Your task to perform on an android device: change your default location settings in chrome Image 0: 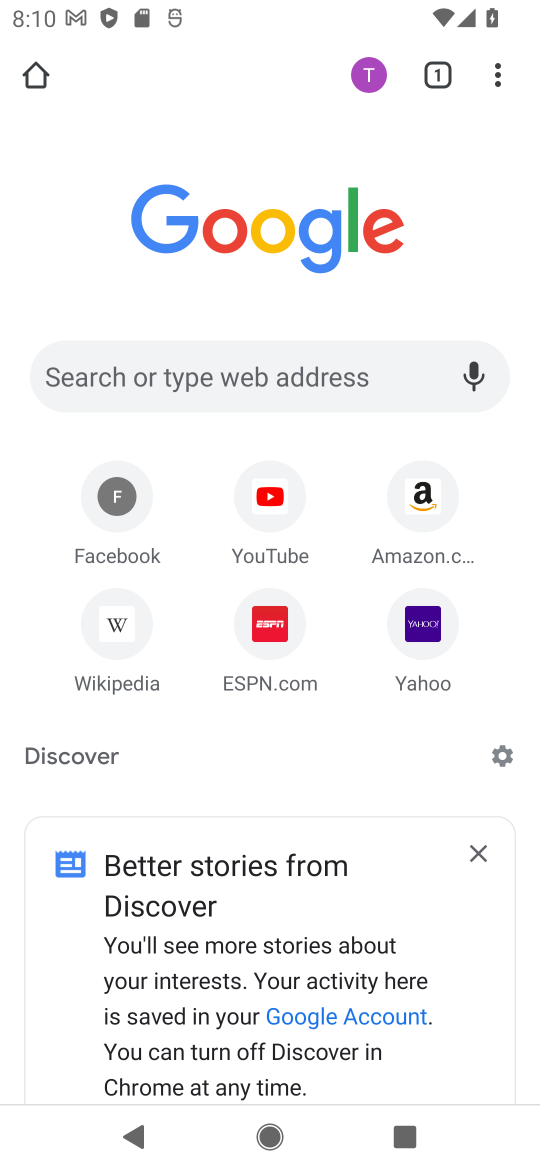
Step 0: press home button
Your task to perform on an android device: change your default location settings in chrome Image 1: 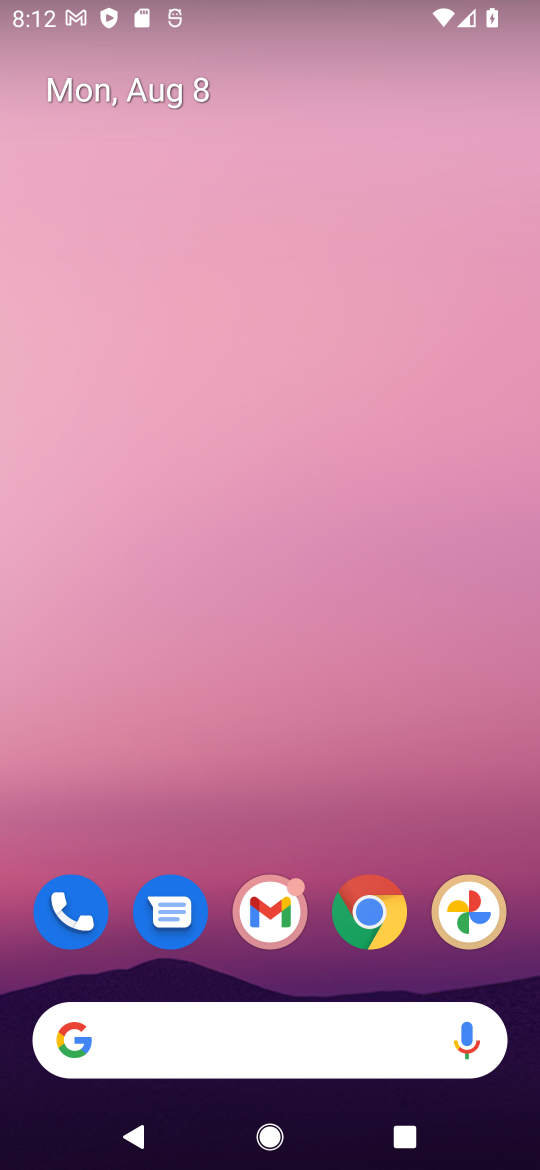
Step 1: drag from (495, 913) to (246, 4)
Your task to perform on an android device: change your default location settings in chrome Image 2: 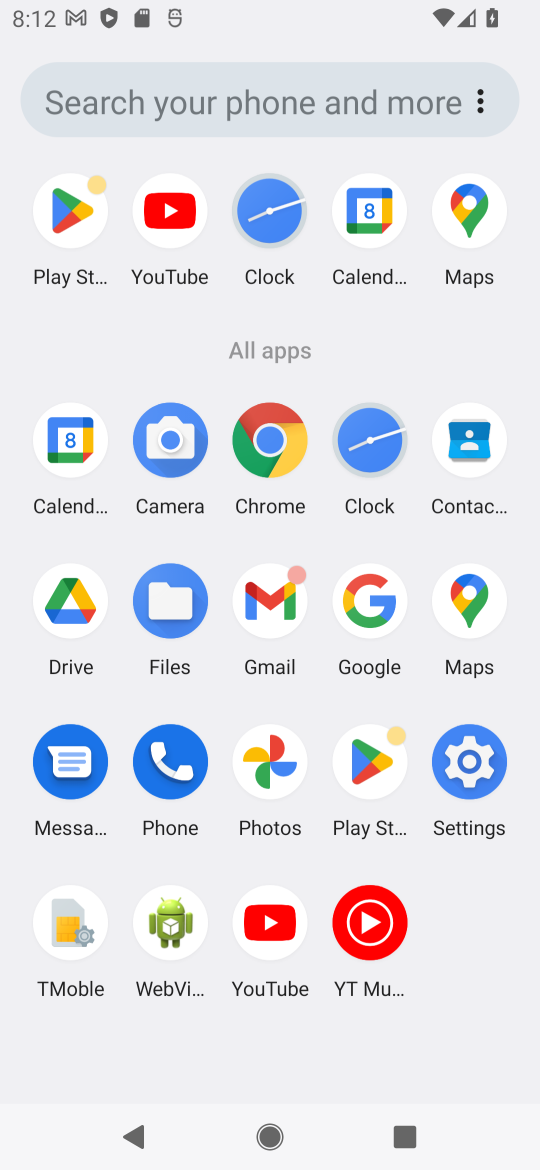
Step 2: click (272, 428)
Your task to perform on an android device: change your default location settings in chrome Image 3: 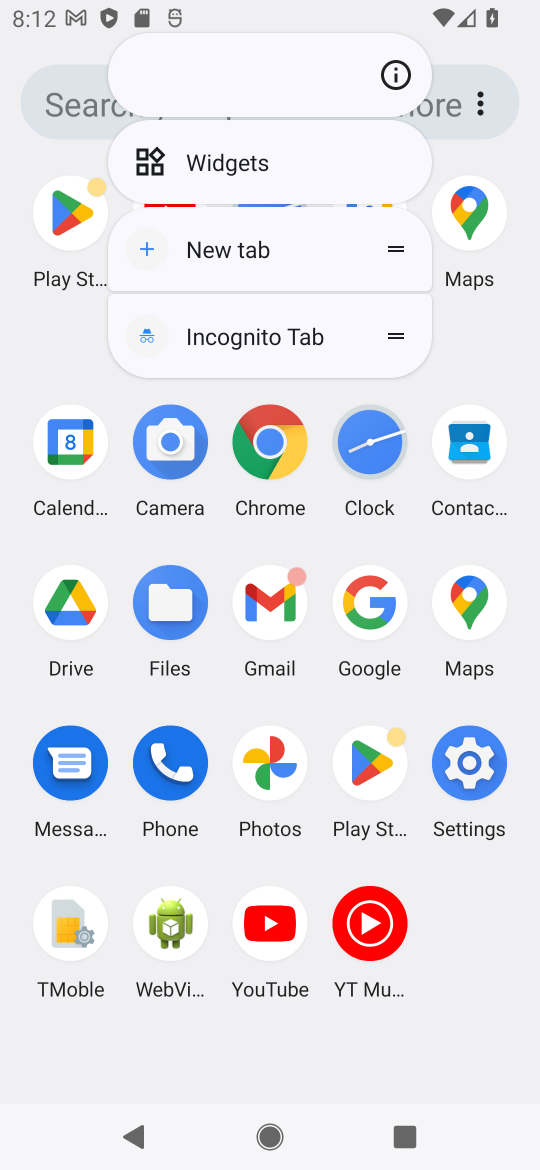
Step 3: click (272, 428)
Your task to perform on an android device: change your default location settings in chrome Image 4: 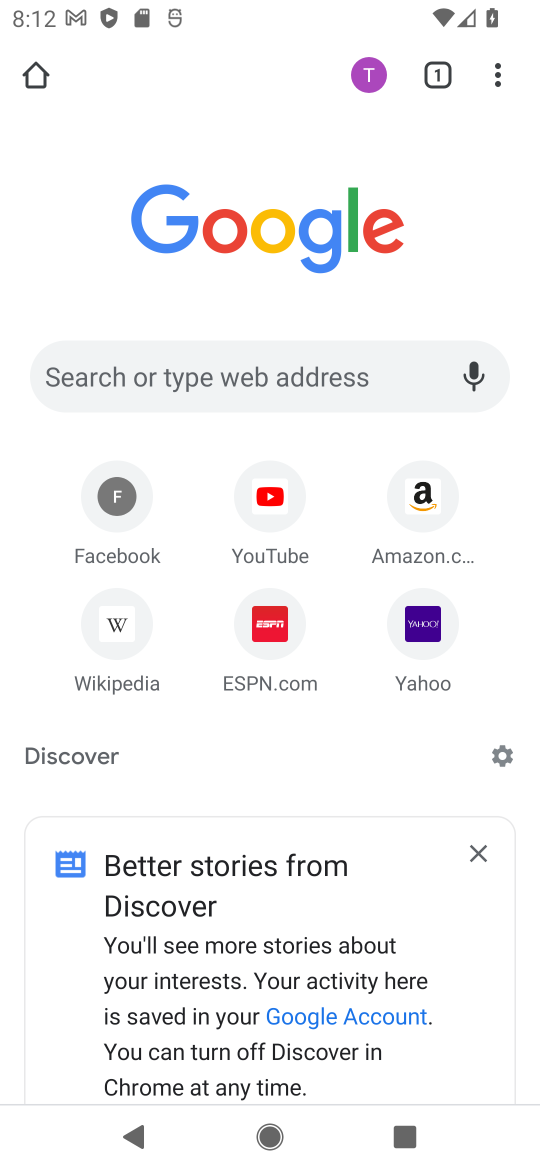
Step 4: click (497, 76)
Your task to perform on an android device: change your default location settings in chrome Image 5: 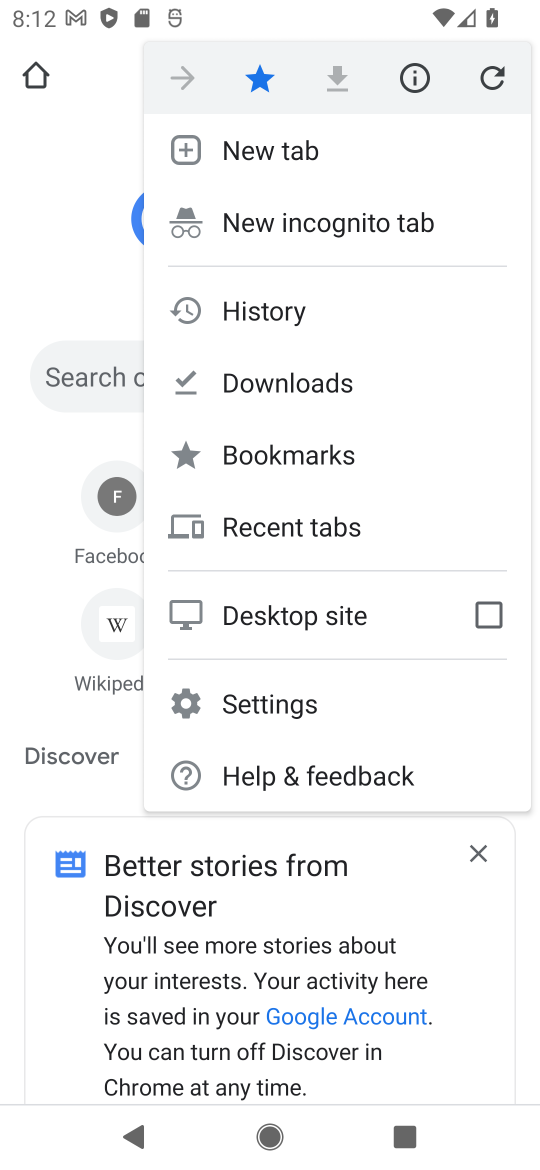
Step 5: click (292, 696)
Your task to perform on an android device: change your default location settings in chrome Image 6: 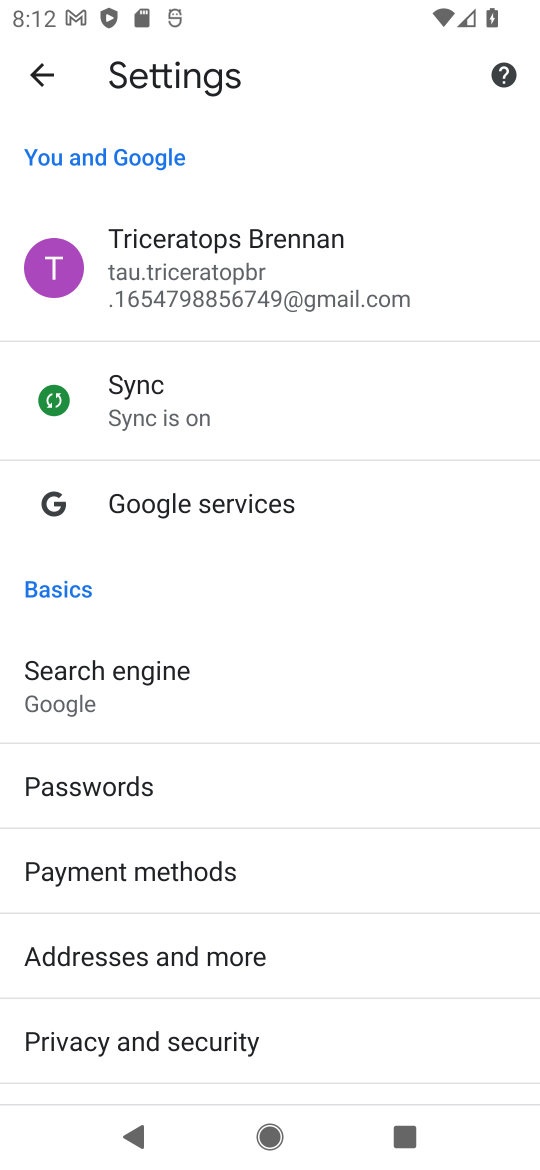
Step 6: click (126, 696)
Your task to perform on an android device: change your default location settings in chrome Image 7: 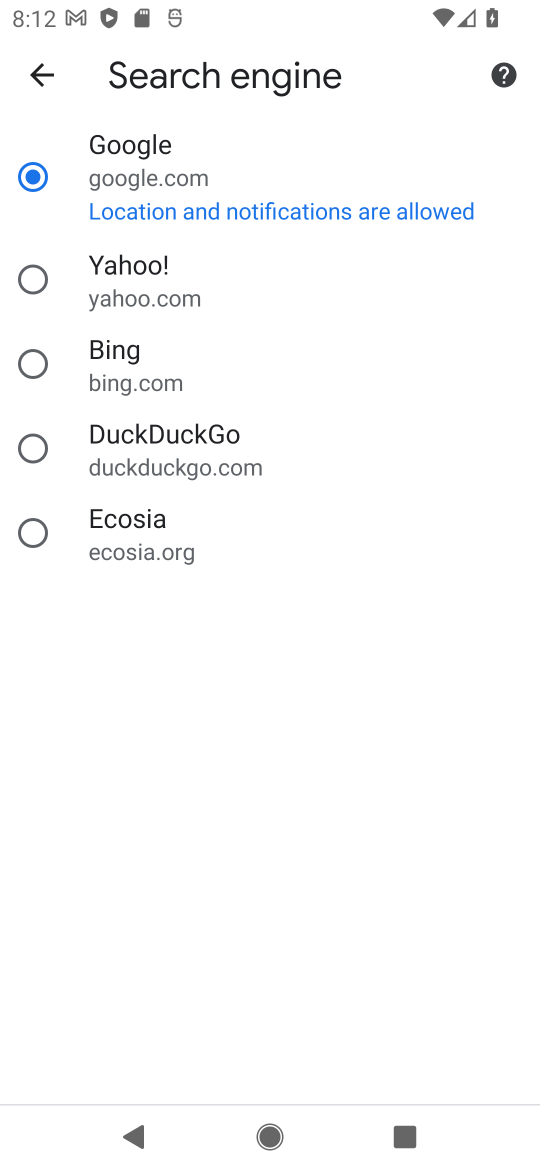
Step 7: click (130, 455)
Your task to perform on an android device: change your default location settings in chrome Image 8: 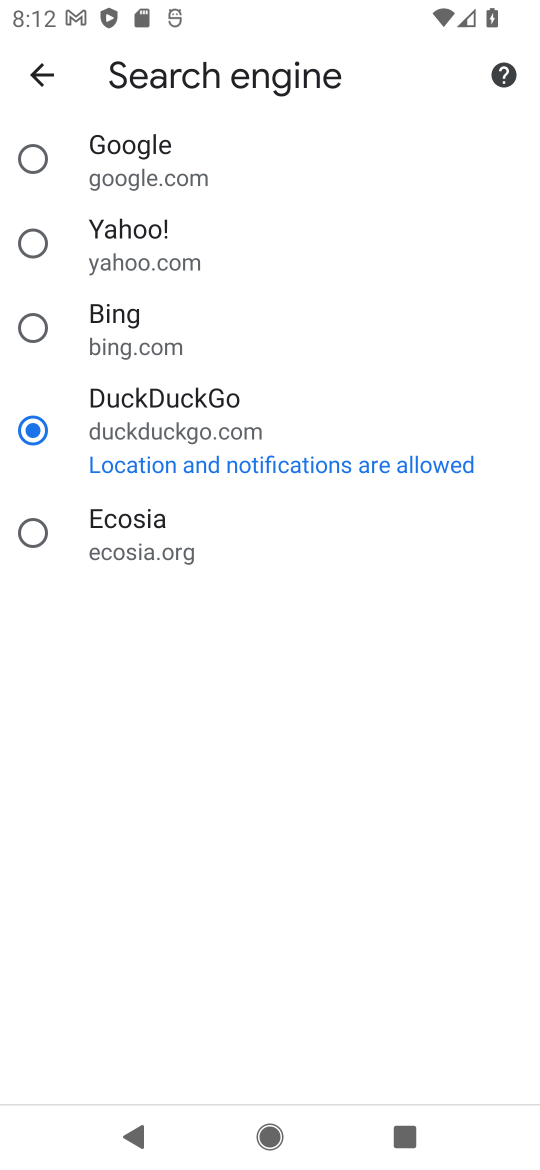
Step 8: task complete